Your task to perform on an android device: What's the weather today? Image 0: 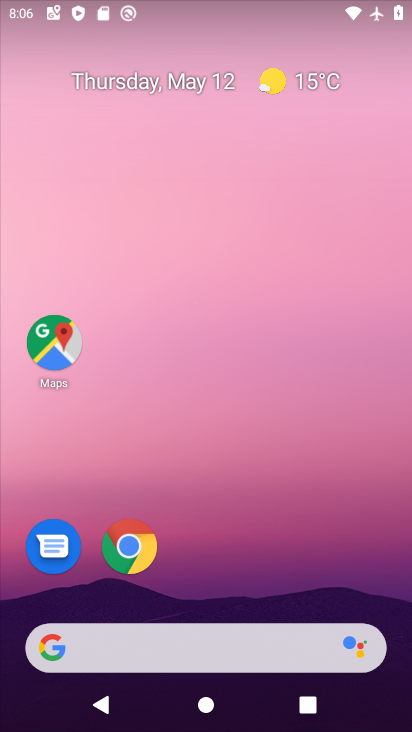
Step 0: click (315, 85)
Your task to perform on an android device: What's the weather today? Image 1: 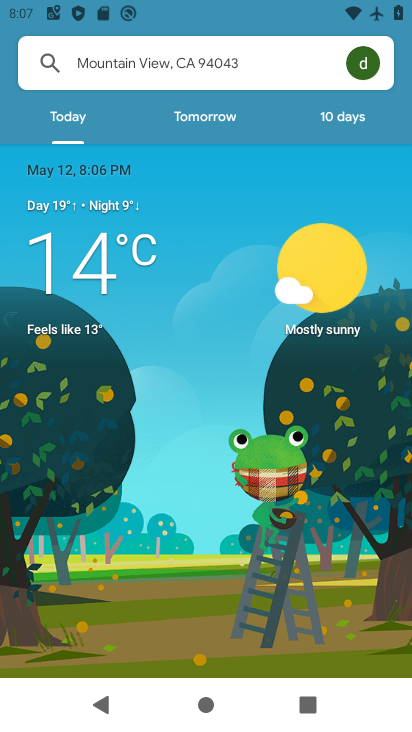
Step 1: task complete